Your task to perform on an android device: change the clock display to analog Image 0: 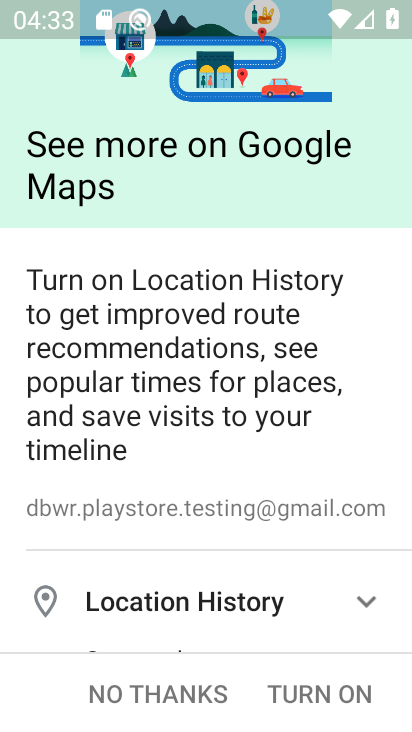
Step 0: press home button
Your task to perform on an android device: change the clock display to analog Image 1: 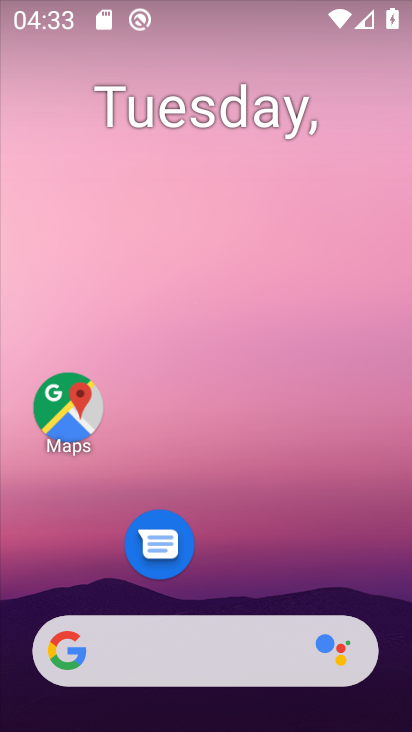
Step 1: drag from (266, 595) to (328, 113)
Your task to perform on an android device: change the clock display to analog Image 2: 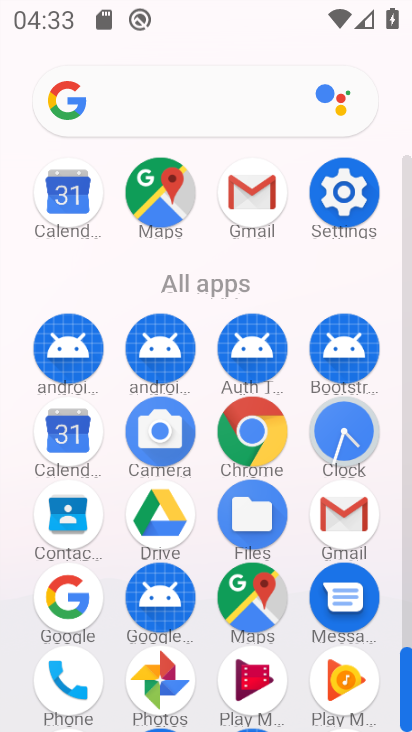
Step 2: click (338, 436)
Your task to perform on an android device: change the clock display to analog Image 3: 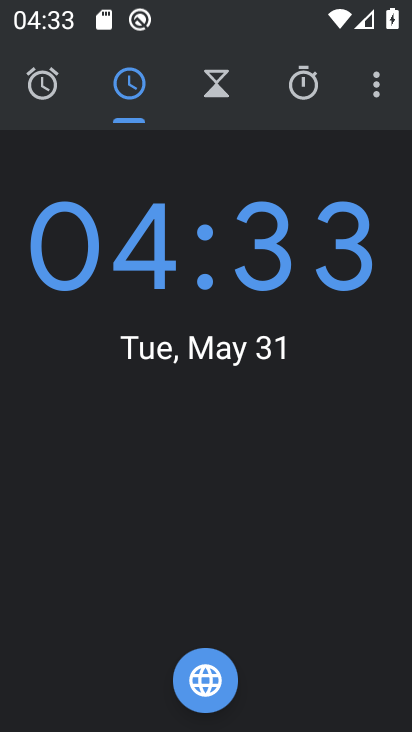
Step 3: click (376, 81)
Your task to perform on an android device: change the clock display to analog Image 4: 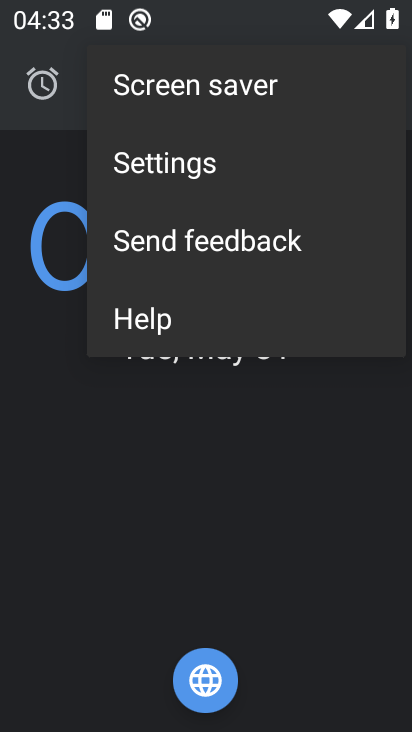
Step 4: click (179, 171)
Your task to perform on an android device: change the clock display to analog Image 5: 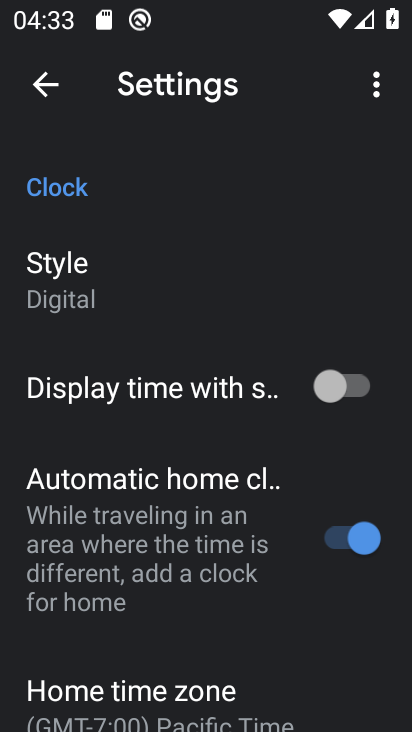
Step 5: click (62, 301)
Your task to perform on an android device: change the clock display to analog Image 6: 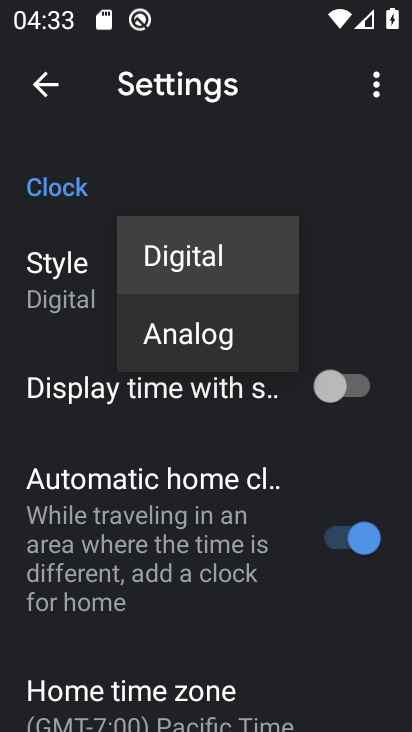
Step 6: click (185, 346)
Your task to perform on an android device: change the clock display to analog Image 7: 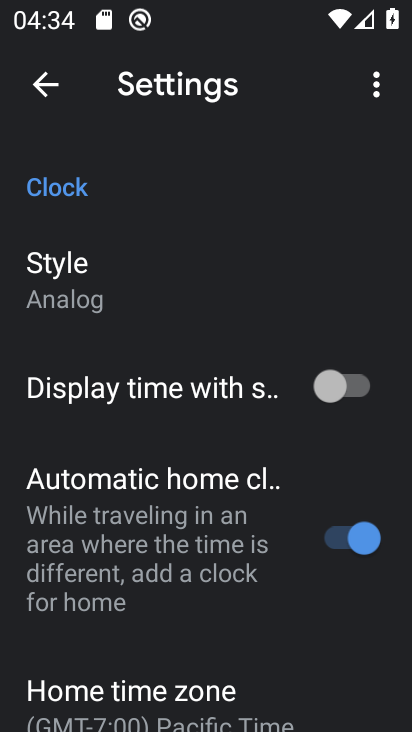
Step 7: task complete